Your task to perform on an android device: Do I have any events this weekend? Image 0: 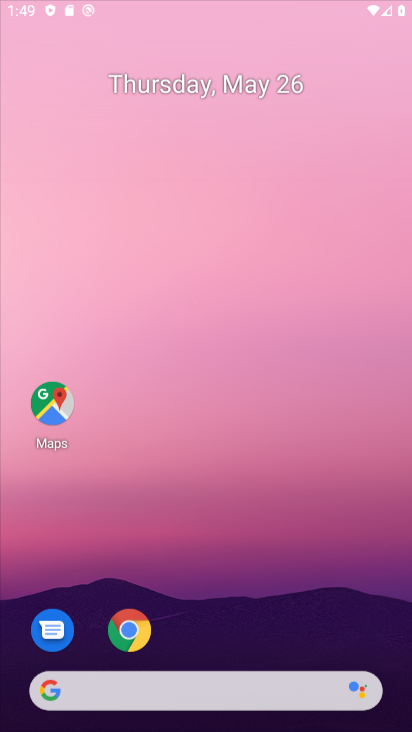
Step 0: drag from (254, 531) to (303, 63)
Your task to perform on an android device: Do I have any events this weekend? Image 1: 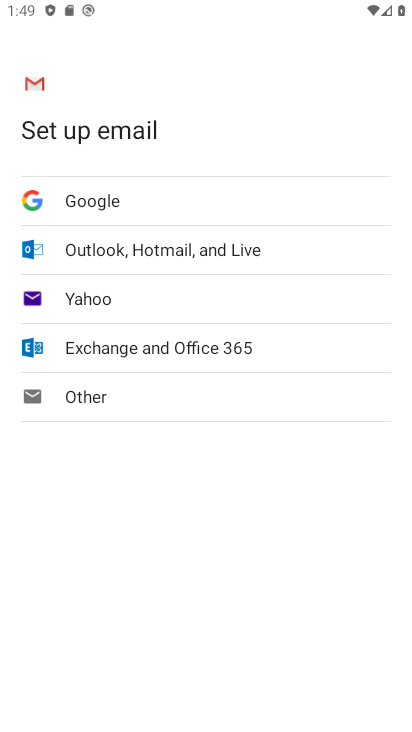
Step 1: press home button
Your task to perform on an android device: Do I have any events this weekend? Image 2: 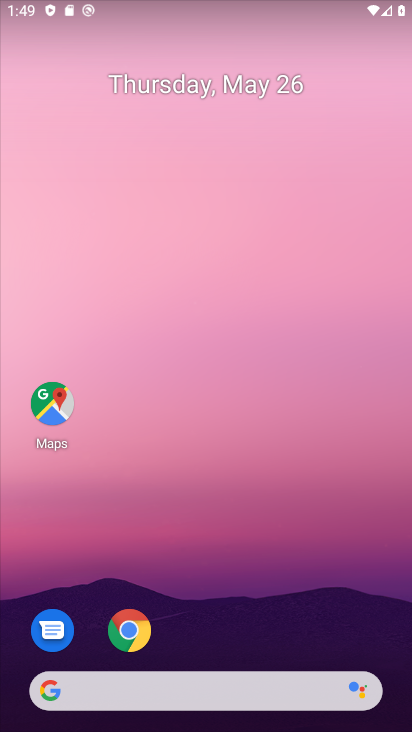
Step 2: drag from (208, 539) to (275, 0)
Your task to perform on an android device: Do I have any events this weekend? Image 3: 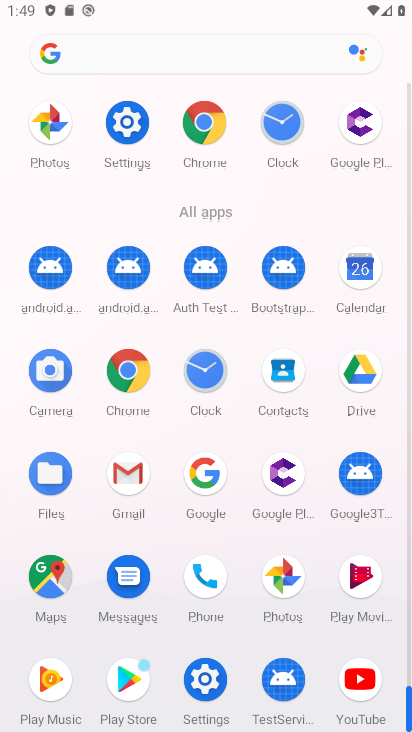
Step 3: click (363, 266)
Your task to perform on an android device: Do I have any events this weekend? Image 4: 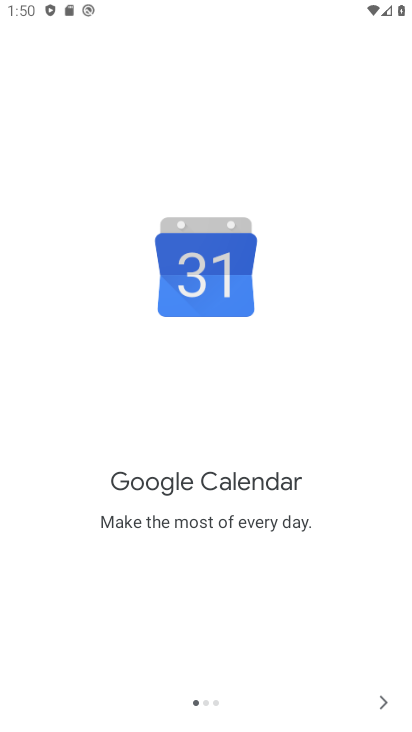
Step 4: click (377, 708)
Your task to perform on an android device: Do I have any events this weekend? Image 5: 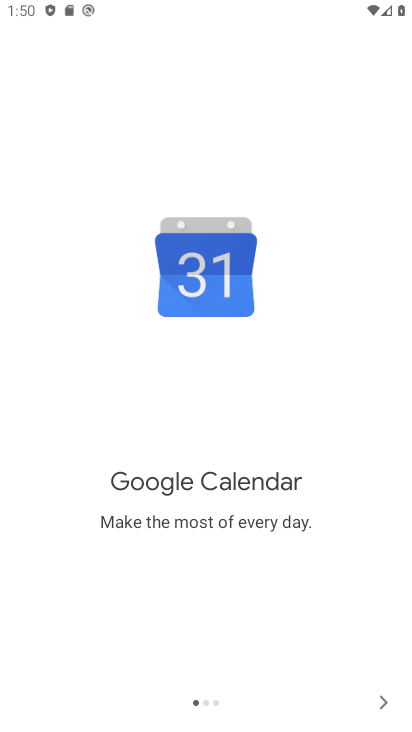
Step 5: click (376, 706)
Your task to perform on an android device: Do I have any events this weekend? Image 6: 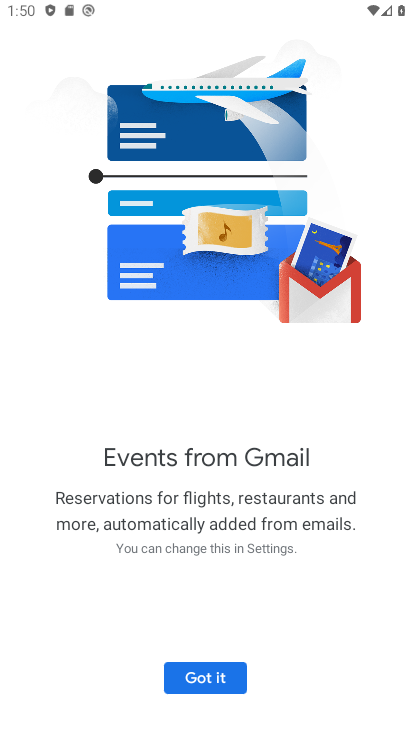
Step 6: click (209, 686)
Your task to perform on an android device: Do I have any events this weekend? Image 7: 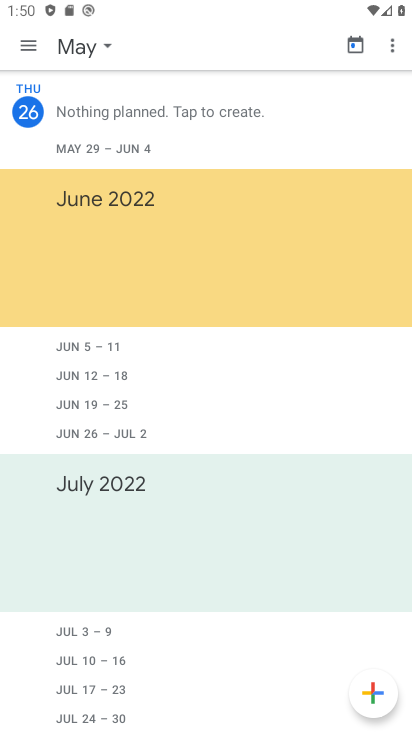
Step 7: click (18, 54)
Your task to perform on an android device: Do I have any events this weekend? Image 8: 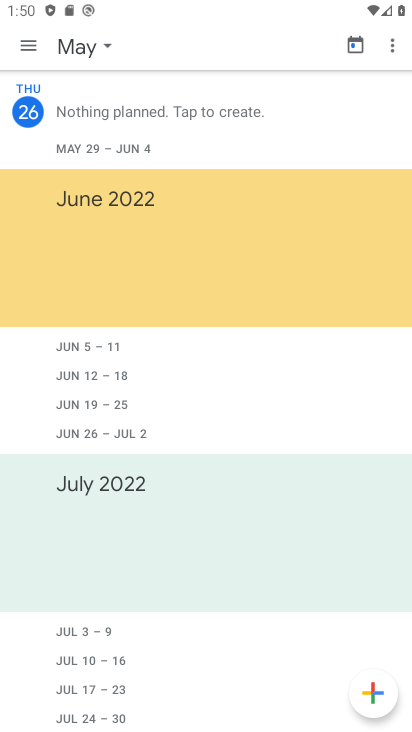
Step 8: click (30, 42)
Your task to perform on an android device: Do I have any events this weekend? Image 9: 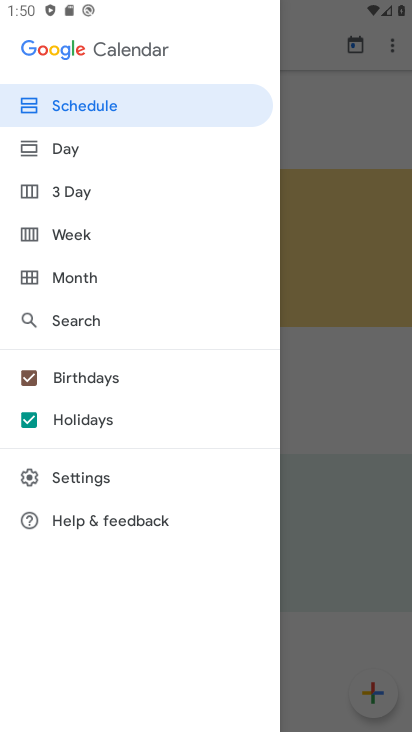
Step 9: click (92, 274)
Your task to perform on an android device: Do I have any events this weekend? Image 10: 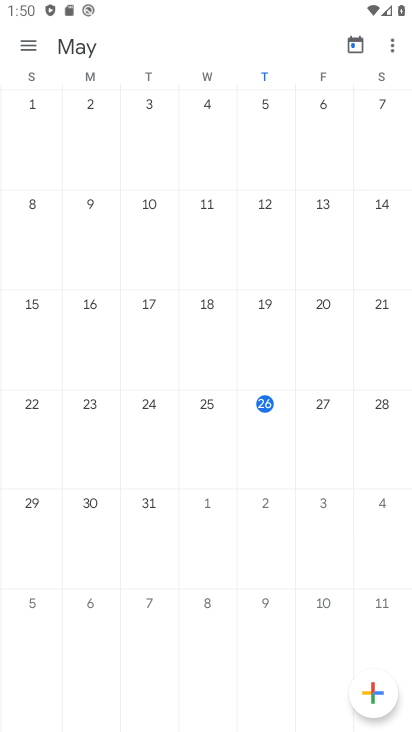
Step 10: click (34, 49)
Your task to perform on an android device: Do I have any events this weekend? Image 11: 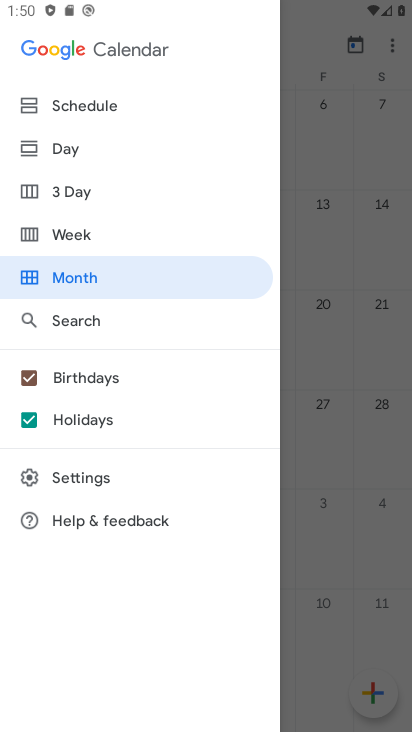
Step 11: click (55, 231)
Your task to perform on an android device: Do I have any events this weekend? Image 12: 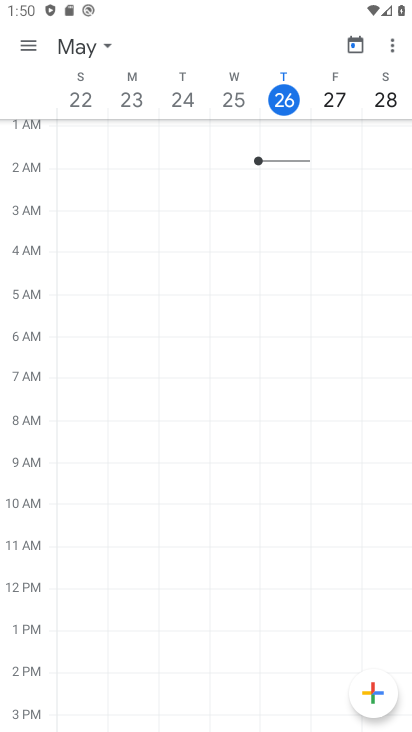
Step 12: task complete